Your task to perform on an android device: turn on the 24-hour format for clock Image 0: 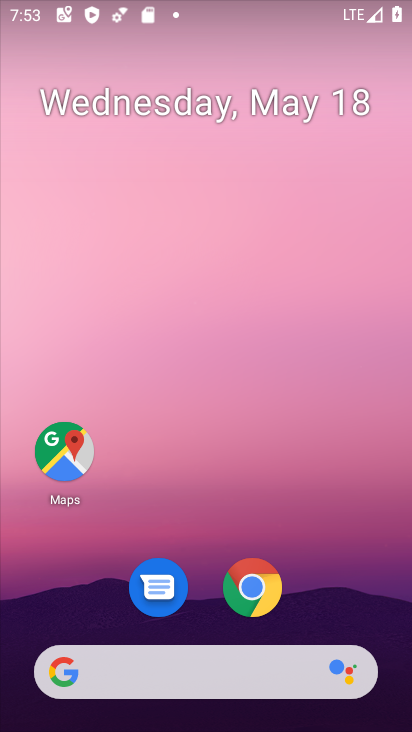
Step 0: drag from (203, 613) to (207, 155)
Your task to perform on an android device: turn on the 24-hour format for clock Image 1: 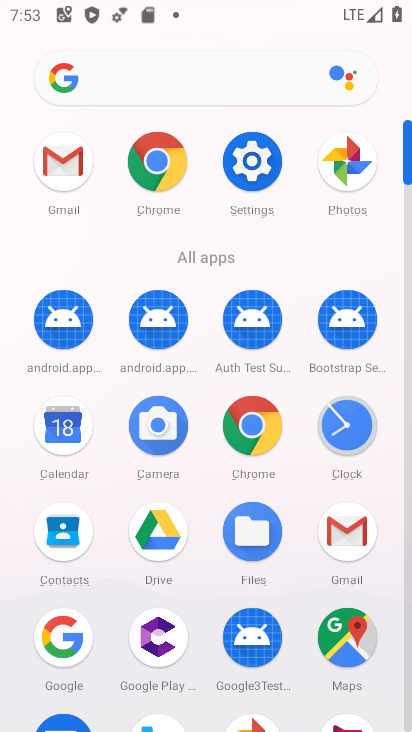
Step 1: click (351, 430)
Your task to perform on an android device: turn on the 24-hour format for clock Image 2: 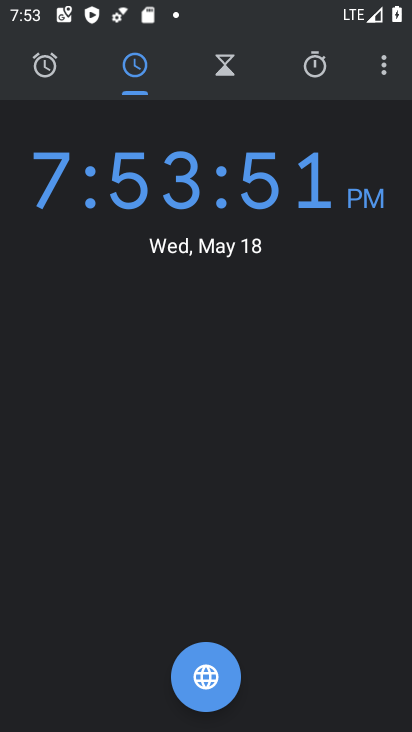
Step 2: click (389, 78)
Your task to perform on an android device: turn on the 24-hour format for clock Image 3: 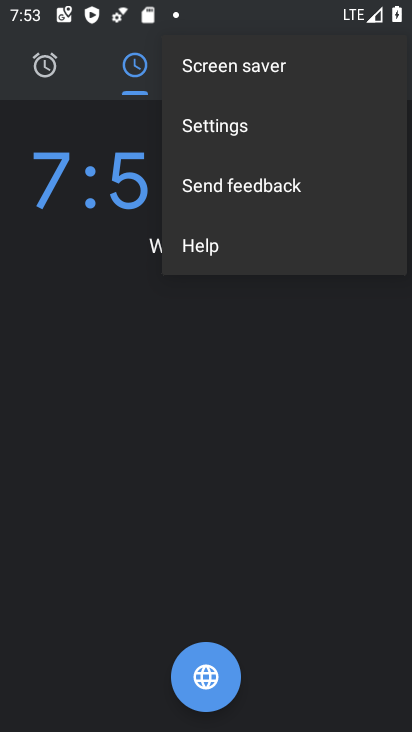
Step 3: click (222, 129)
Your task to perform on an android device: turn on the 24-hour format for clock Image 4: 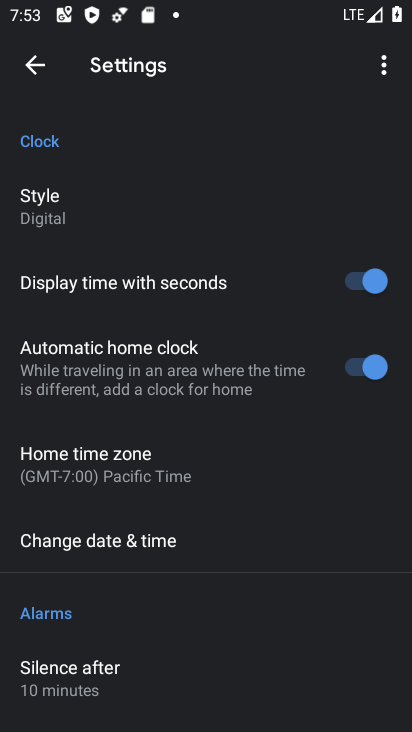
Step 4: click (253, 547)
Your task to perform on an android device: turn on the 24-hour format for clock Image 5: 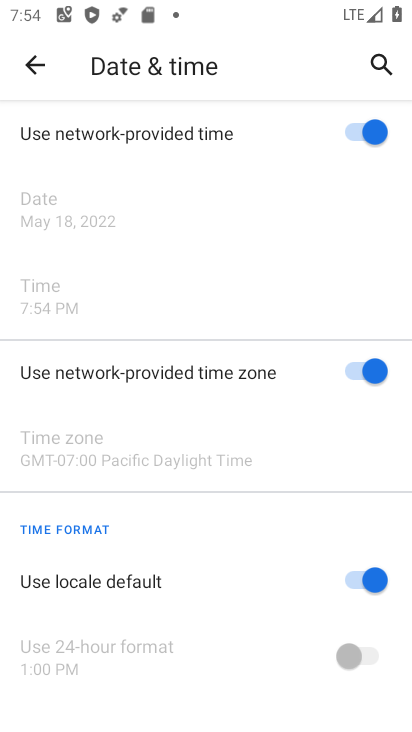
Step 5: click (361, 586)
Your task to perform on an android device: turn on the 24-hour format for clock Image 6: 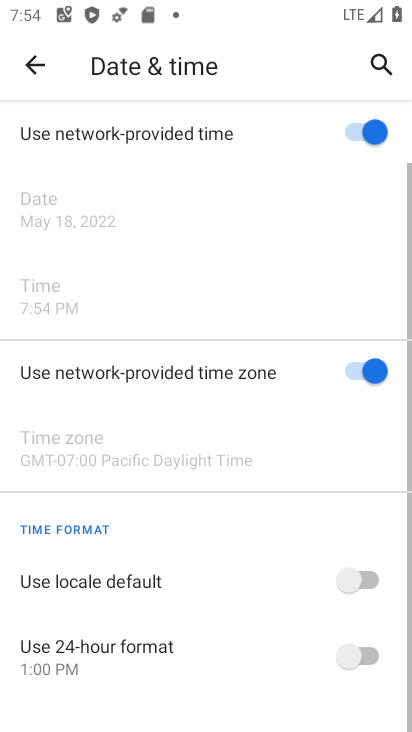
Step 6: click (369, 647)
Your task to perform on an android device: turn on the 24-hour format for clock Image 7: 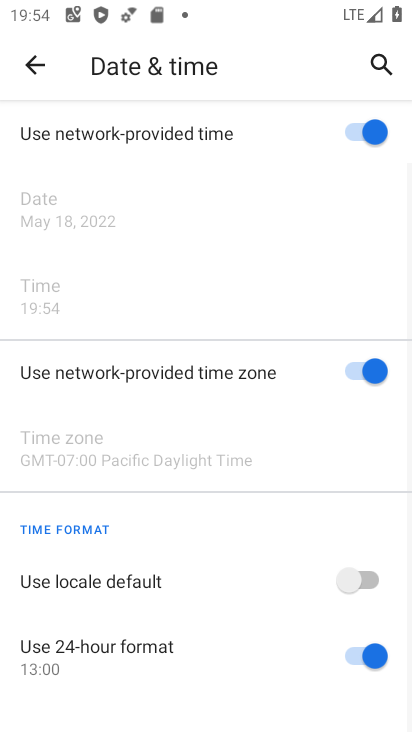
Step 7: task complete